Your task to perform on an android device: Open a new window in Chrome Image 0: 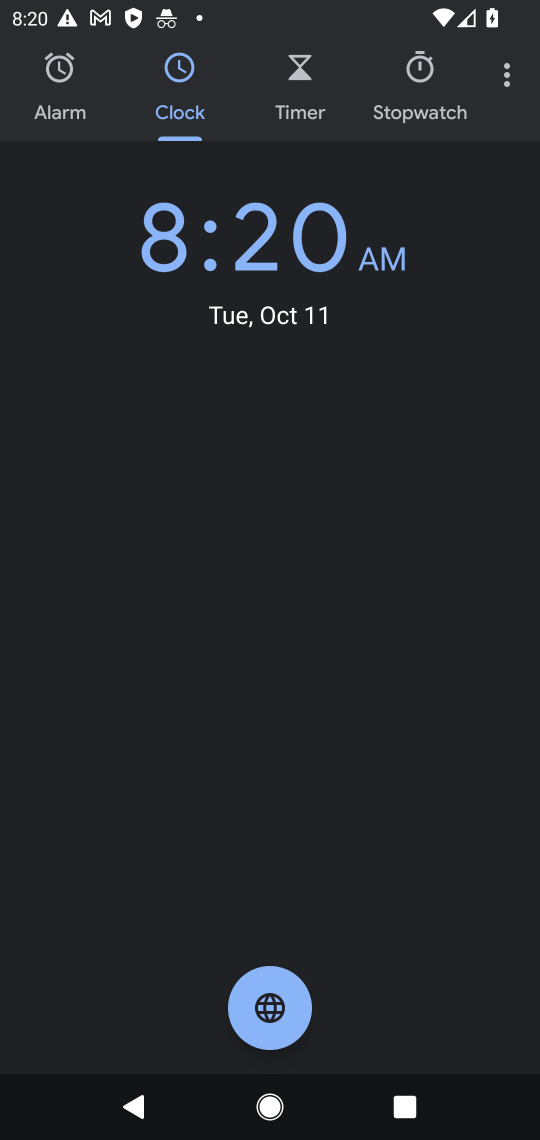
Step 0: press home button
Your task to perform on an android device: Open a new window in Chrome Image 1: 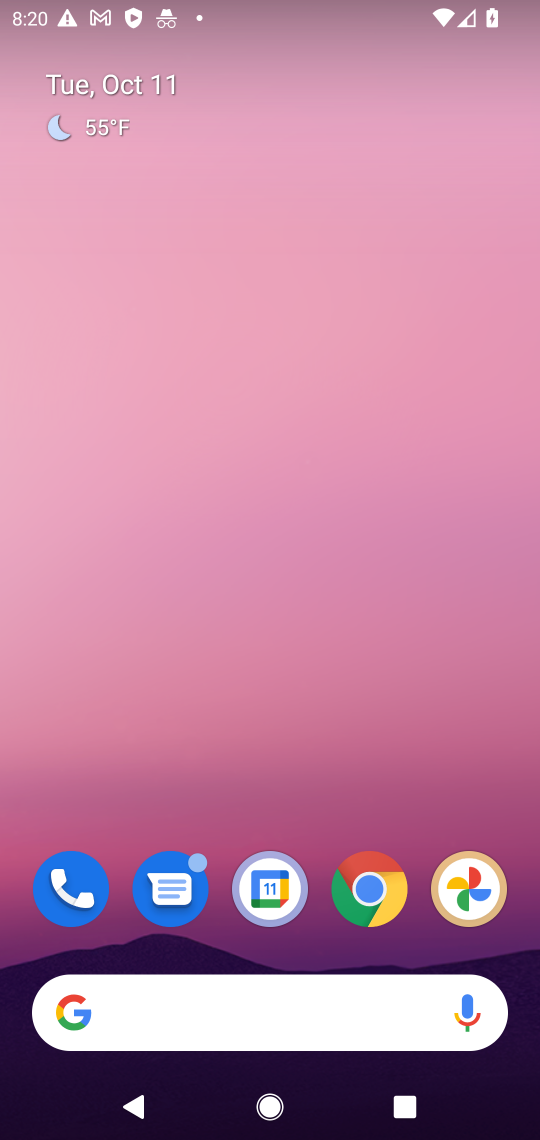
Step 1: click (374, 899)
Your task to perform on an android device: Open a new window in Chrome Image 2: 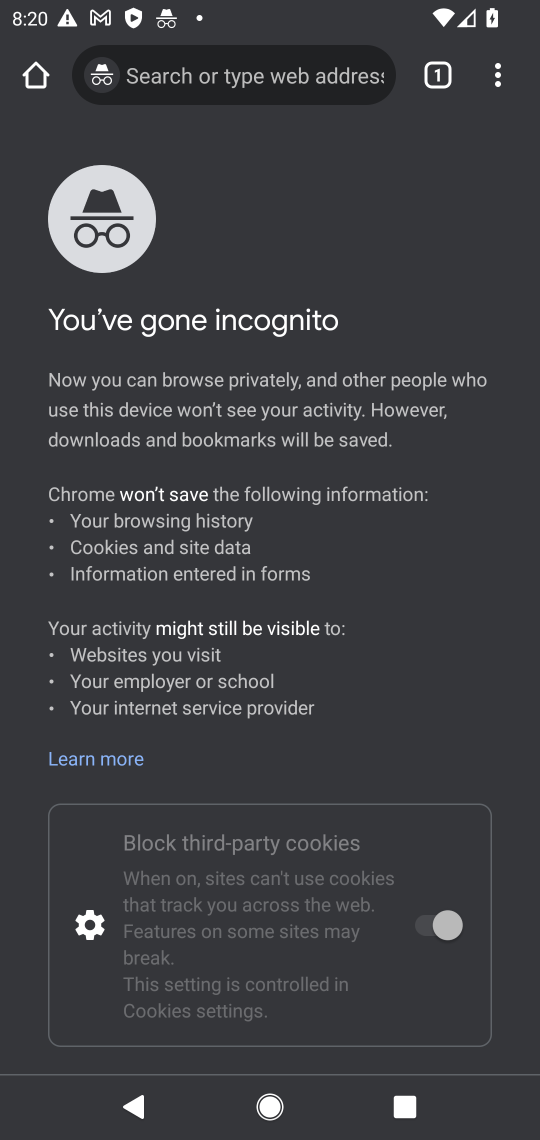
Step 2: click (437, 73)
Your task to perform on an android device: Open a new window in Chrome Image 3: 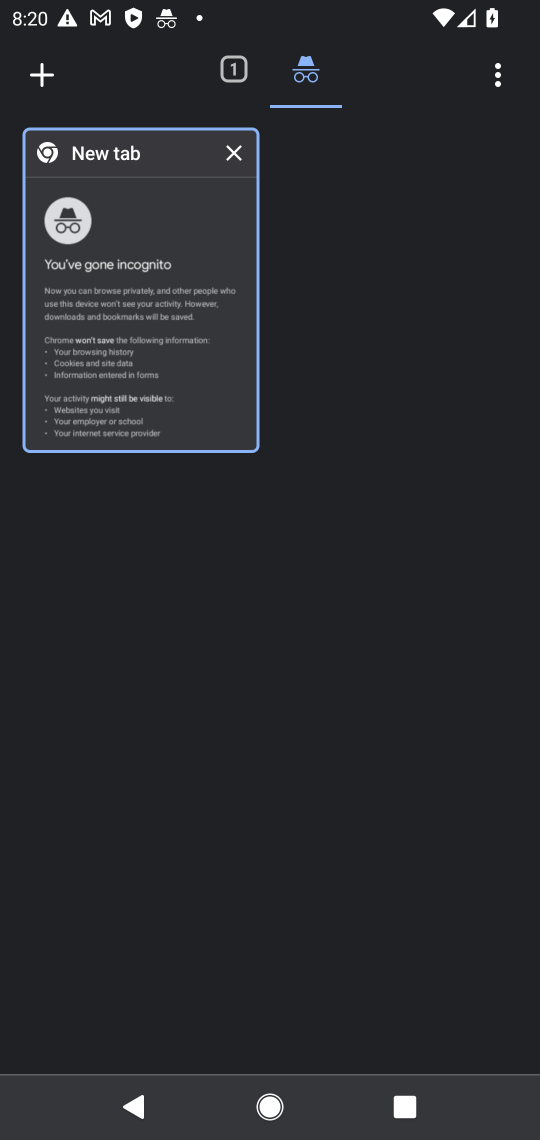
Step 3: click (230, 79)
Your task to perform on an android device: Open a new window in Chrome Image 4: 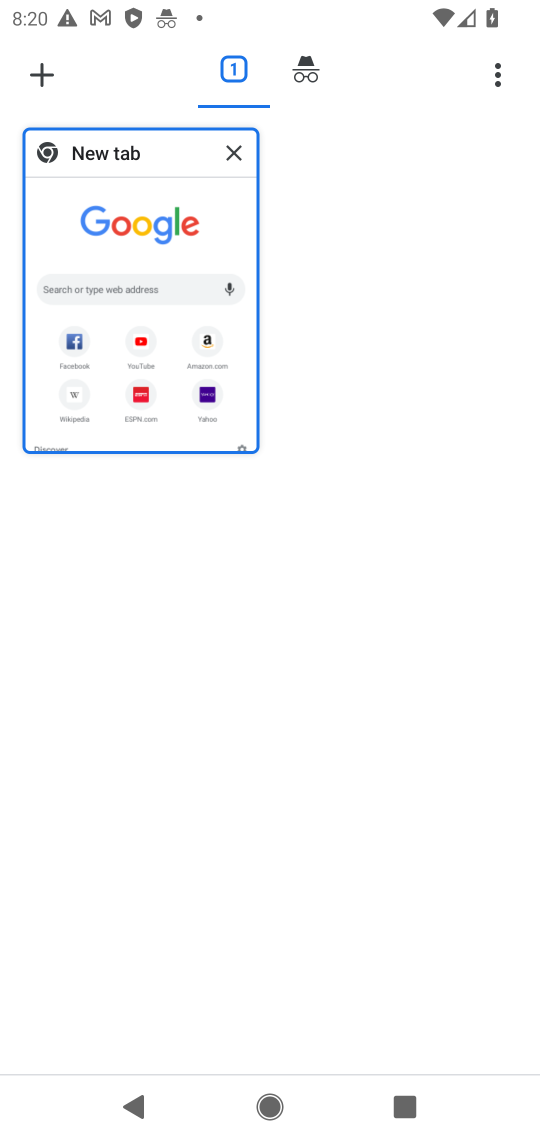
Step 4: click (45, 70)
Your task to perform on an android device: Open a new window in Chrome Image 5: 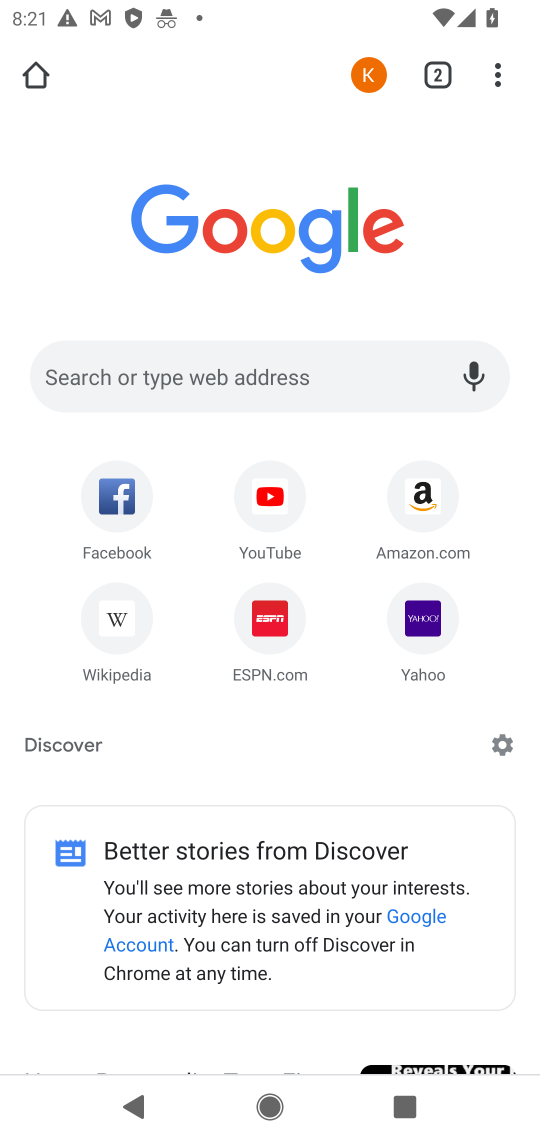
Step 5: task complete